Your task to perform on an android device: Go to Reddit.com Image 0: 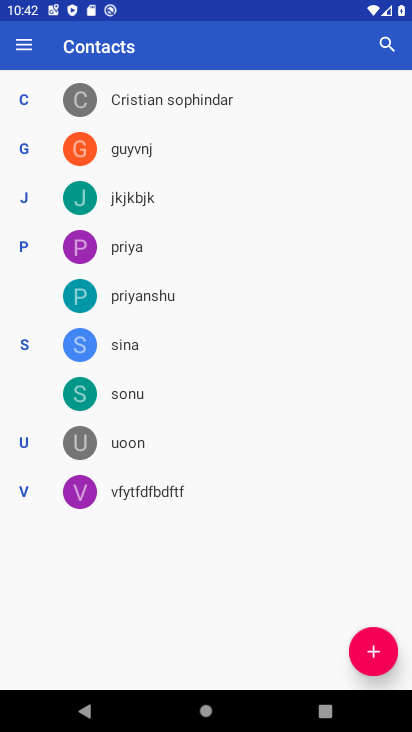
Step 0: press home button
Your task to perform on an android device: Go to Reddit.com Image 1: 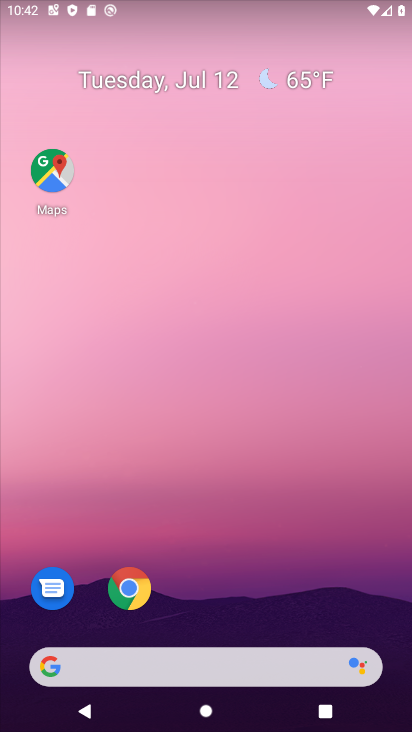
Step 1: click (94, 648)
Your task to perform on an android device: Go to Reddit.com Image 2: 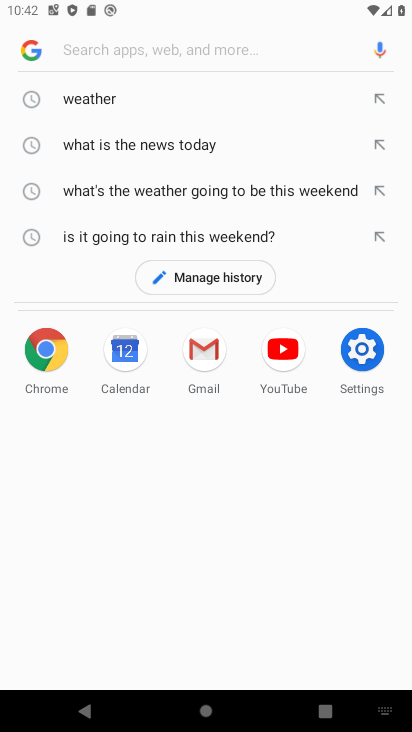
Step 2: click (169, 39)
Your task to perform on an android device: Go to Reddit.com Image 3: 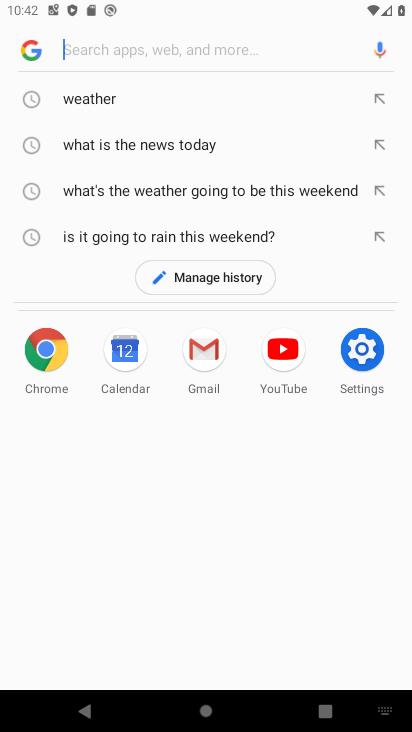
Step 3: click (169, 39)
Your task to perform on an android device: Go to Reddit.com Image 4: 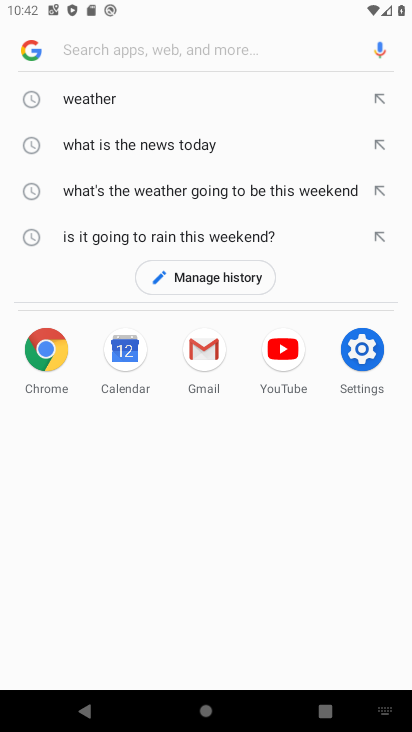
Step 4: type "Reddit.com"
Your task to perform on an android device: Go to Reddit.com Image 5: 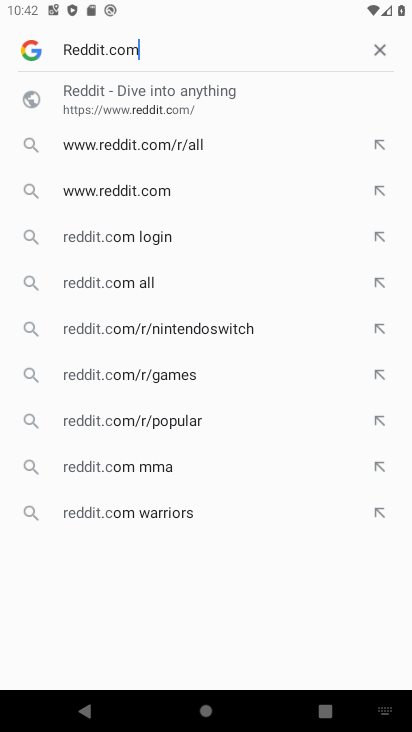
Step 5: type ""
Your task to perform on an android device: Go to Reddit.com Image 6: 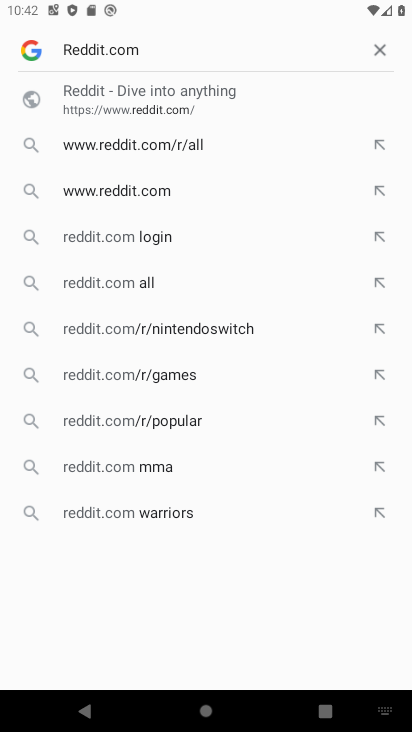
Step 6: click (118, 83)
Your task to perform on an android device: Go to Reddit.com Image 7: 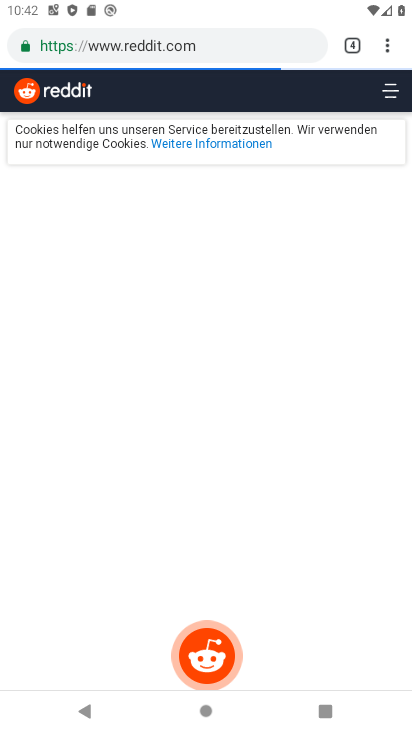
Step 7: task complete